Your task to perform on an android device: Open Wikipedia Image 0: 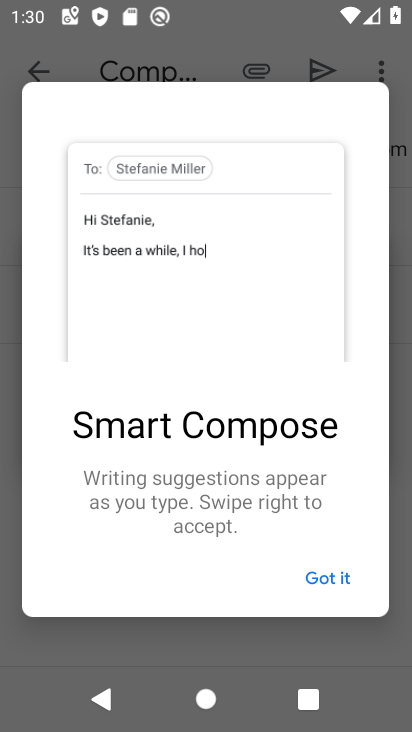
Step 0: press back button
Your task to perform on an android device: Open Wikipedia Image 1: 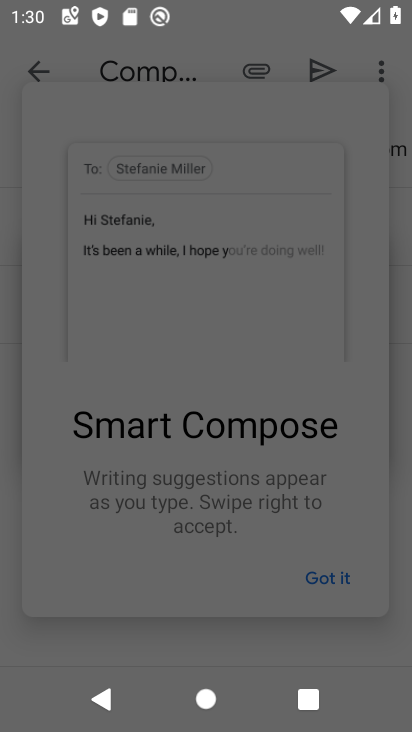
Step 1: press back button
Your task to perform on an android device: Open Wikipedia Image 2: 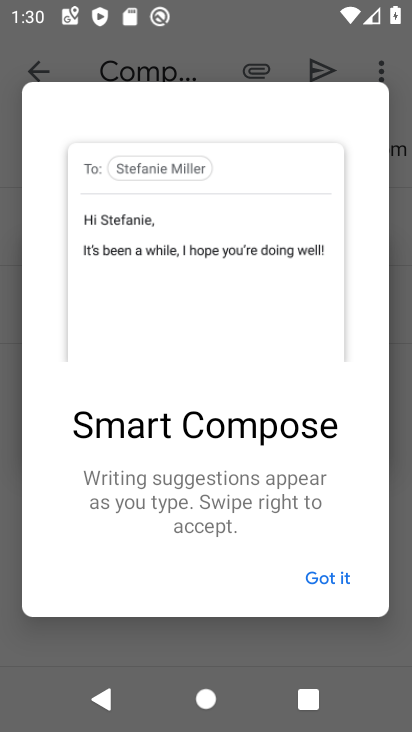
Step 2: press home button
Your task to perform on an android device: Open Wikipedia Image 3: 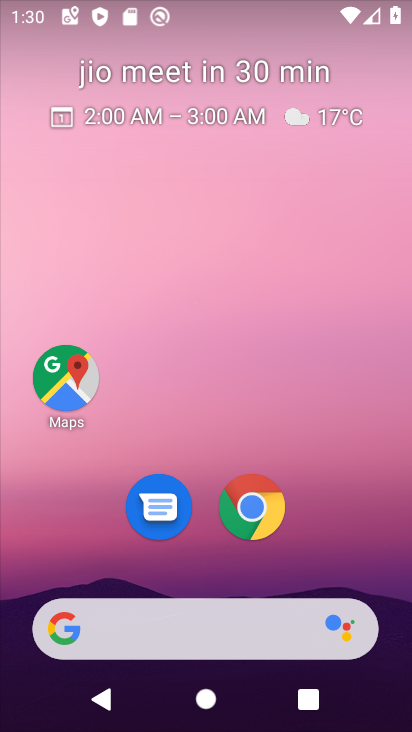
Step 3: drag from (356, 528) to (264, 40)
Your task to perform on an android device: Open Wikipedia Image 4: 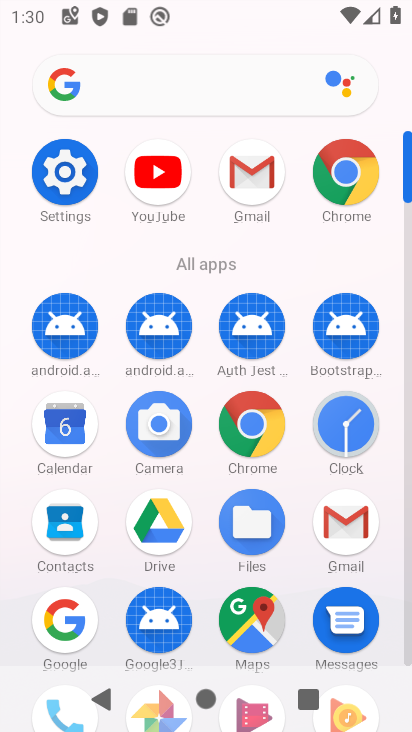
Step 4: click (250, 417)
Your task to perform on an android device: Open Wikipedia Image 5: 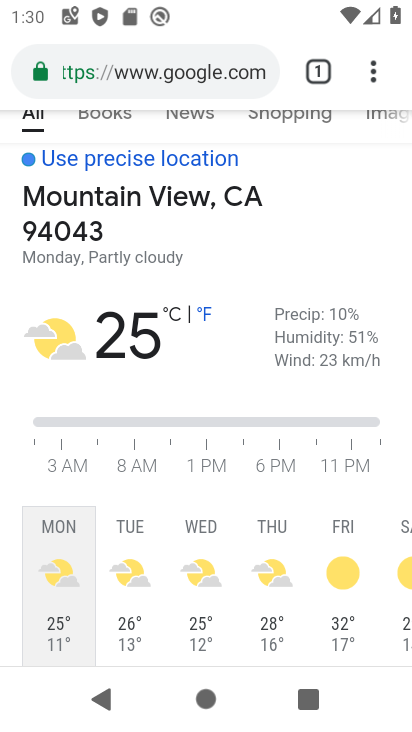
Step 5: click (196, 58)
Your task to perform on an android device: Open Wikipedia Image 6: 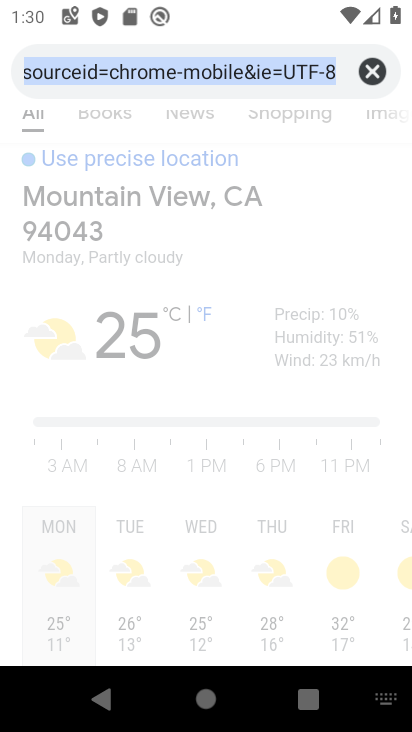
Step 6: click (363, 76)
Your task to perform on an android device: Open Wikipedia Image 7: 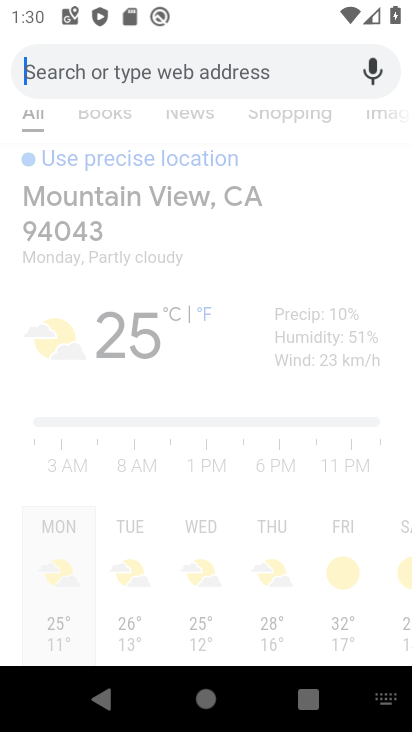
Step 7: type "Wikipedia"
Your task to perform on an android device: Open Wikipedia Image 8: 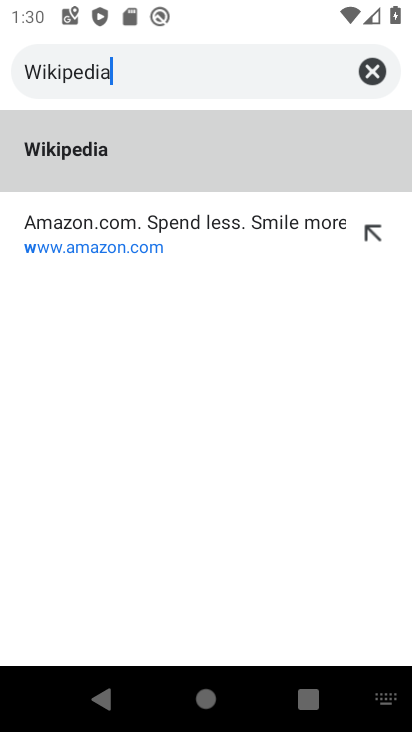
Step 8: type ""
Your task to perform on an android device: Open Wikipedia Image 9: 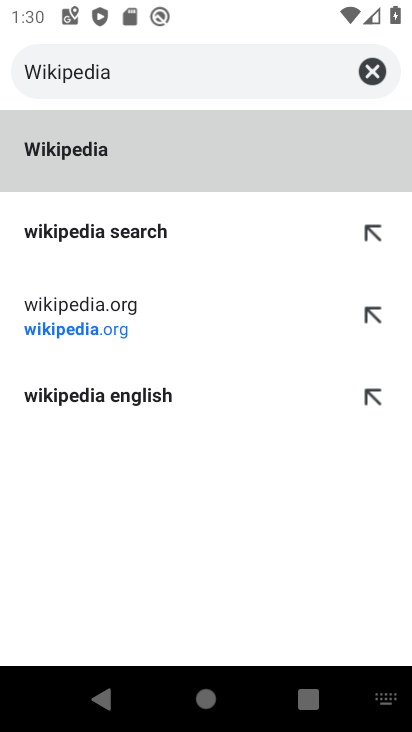
Step 9: click (87, 323)
Your task to perform on an android device: Open Wikipedia Image 10: 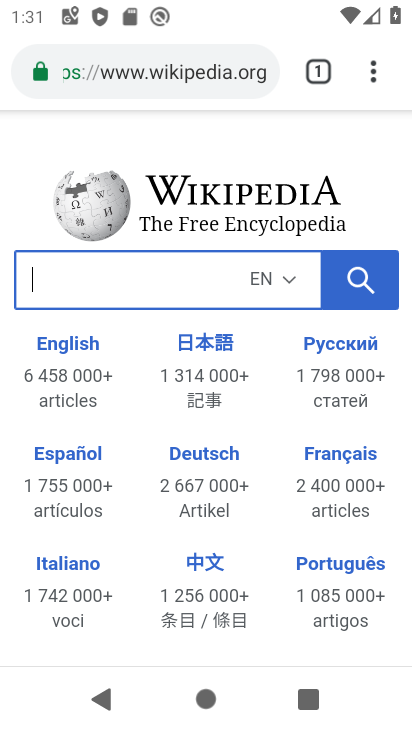
Step 10: task complete